Your task to perform on an android device: Open CNN.com Image 0: 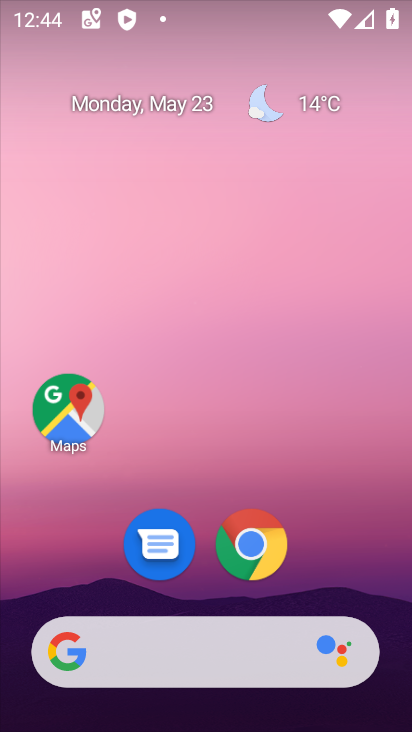
Step 0: drag from (345, 487) to (240, 104)
Your task to perform on an android device: Open CNN.com Image 1: 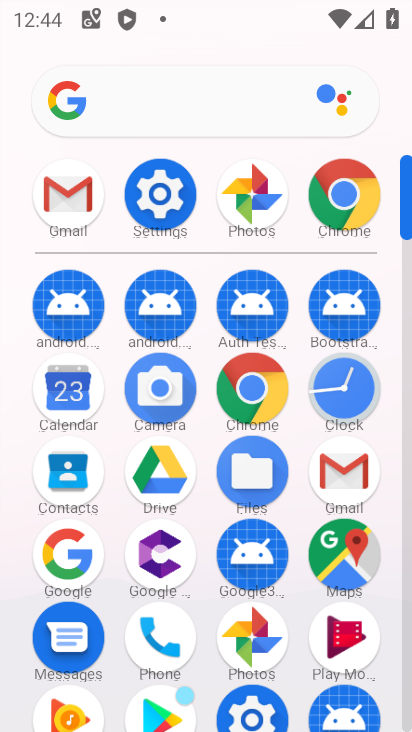
Step 1: click (355, 194)
Your task to perform on an android device: Open CNN.com Image 2: 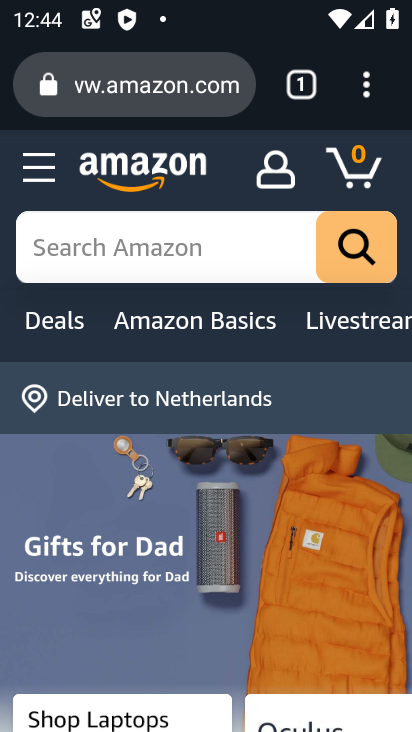
Step 2: click (141, 118)
Your task to perform on an android device: Open CNN.com Image 3: 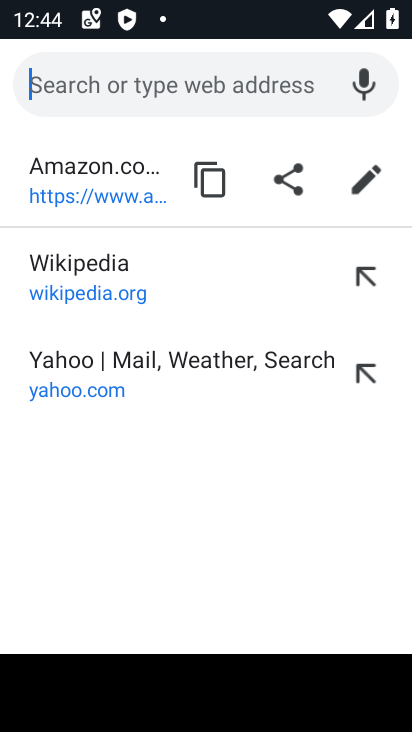
Step 3: type "cnn.com"
Your task to perform on an android device: Open CNN.com Image 4: 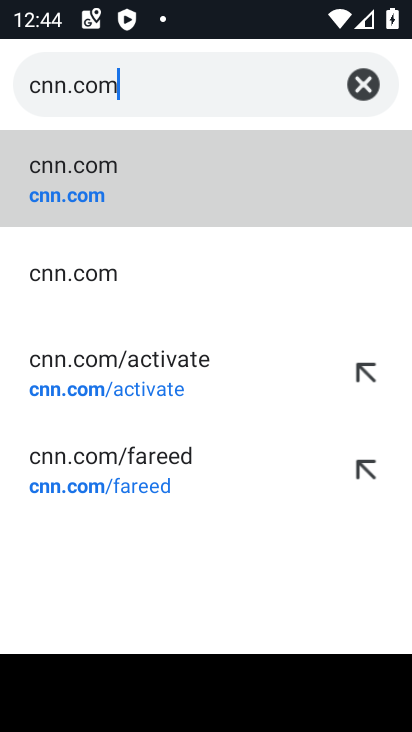
Step 4: drag from (394, 239) to (68, 194)
Your task to perform on an android device: Open CNN.com Image 5: 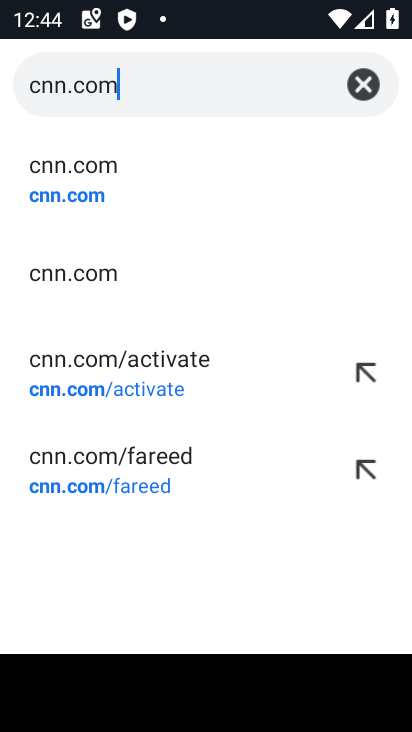
Step 5: click (74, 195)
Your task to perform on an android device: Open CNN.com Image 6: 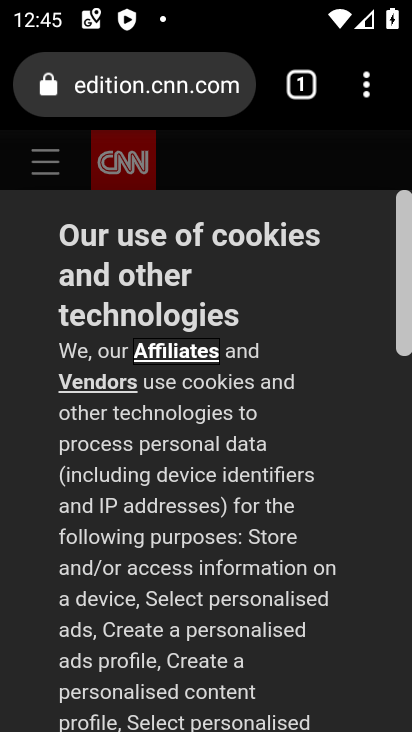
Step 6: task complete